Your task to perform on an android device: Set the phone to "Do not disturb". Image 0: 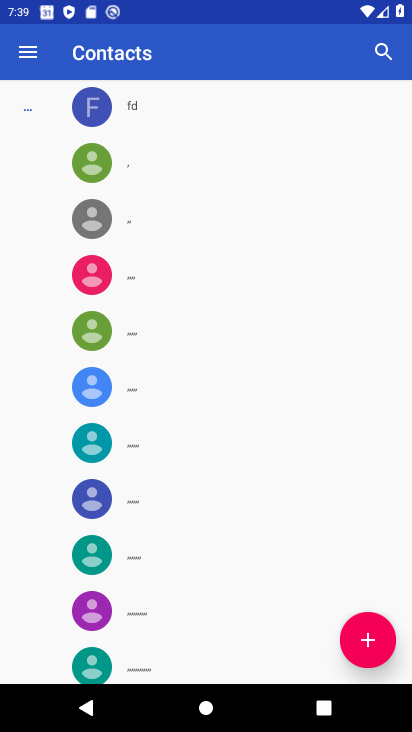
Step 0: press back button
Your task to perform on an android device: Set the phone to "Do not disturb". Image 1: 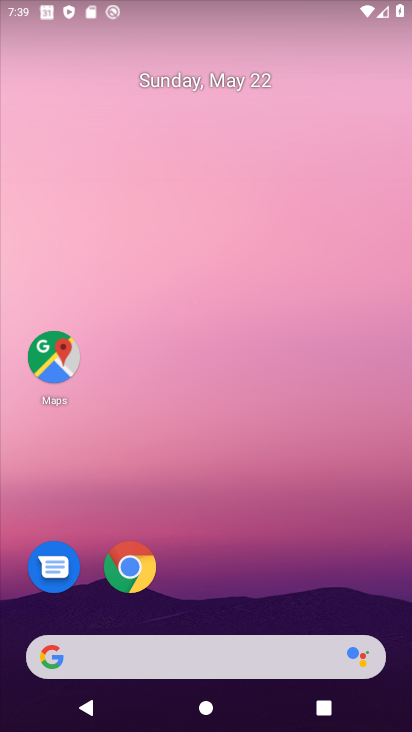
Step 1: drag from (212, 20) to (229, 484)
Your task to perform on an android device: Set the phone to "Do not disturb". Image 2: 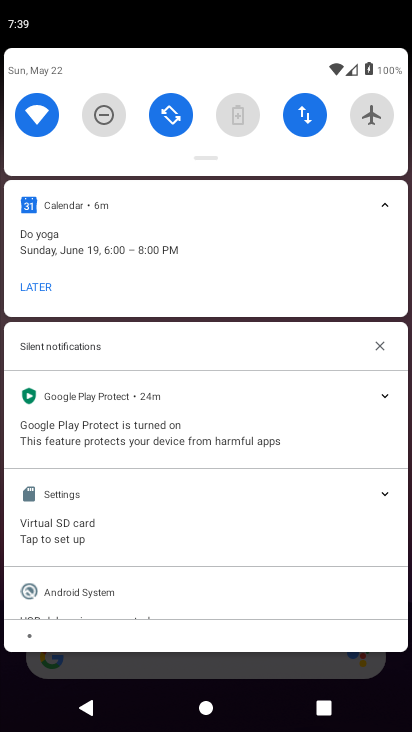
Step 2: click (104, 89)
Your task to perform on an android device: Set the phone to "Do not disturb". Image 3: 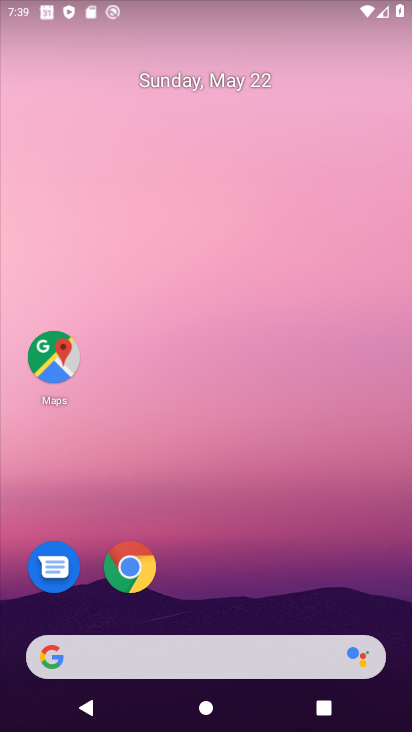
Step 3: drag from (136, 10) to (131, 481)
Your task to perform on an android device: Set the phone to "Do not disturb". Image 4: 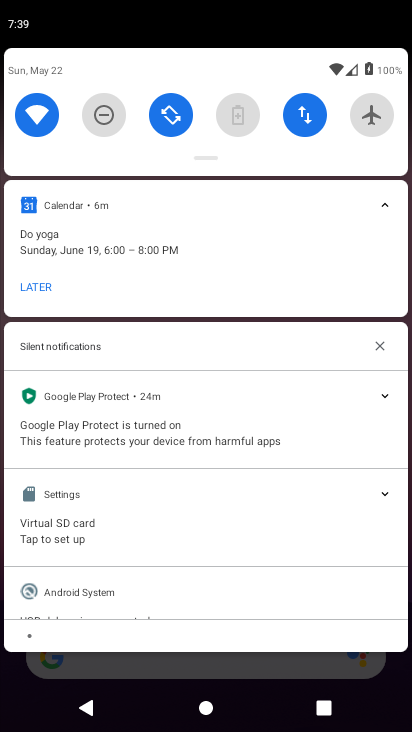
Step 4: click (104, 114)
Your task to perform on an android device: Set the phone to "Do not disturb". Image 5: 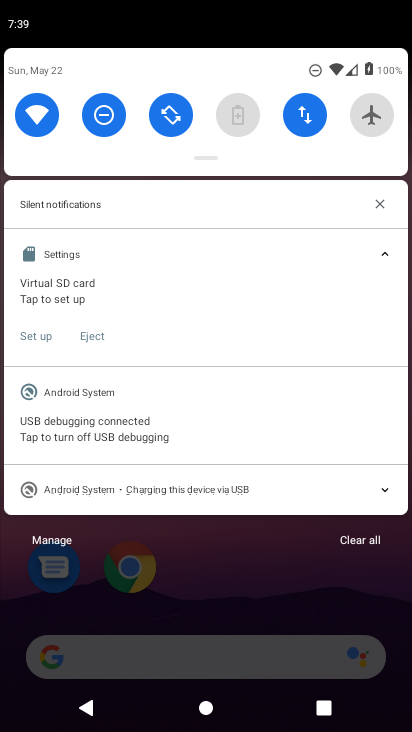
Step 5: task complete